Your task to perform on an android device: What's the price of the Sony TV? Image 0: 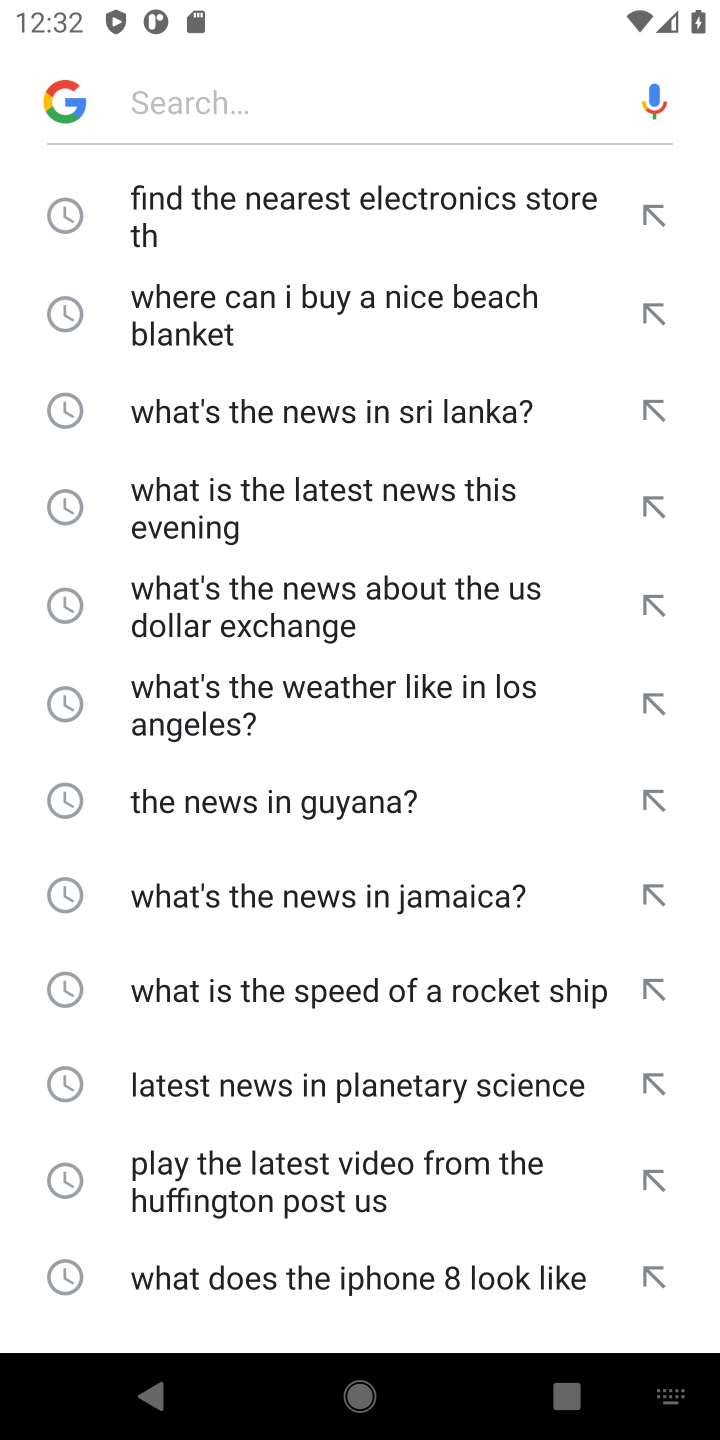
Step 0: press home button
Your task to perform on an android device: What's the price of the Sony TV? Image 1: 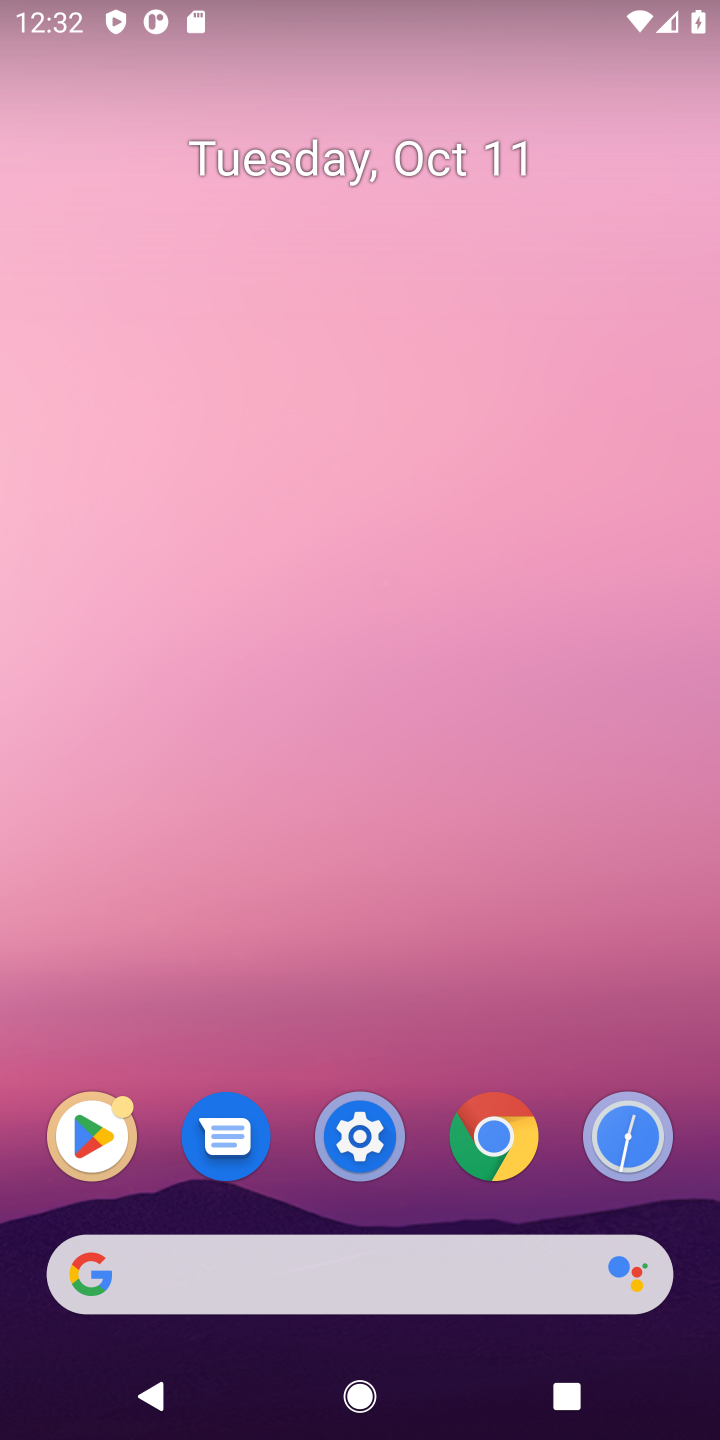
Step 1: click (161, 1276)
Your task to perform on an android device: What's the price of the Sony TV? Image 2: 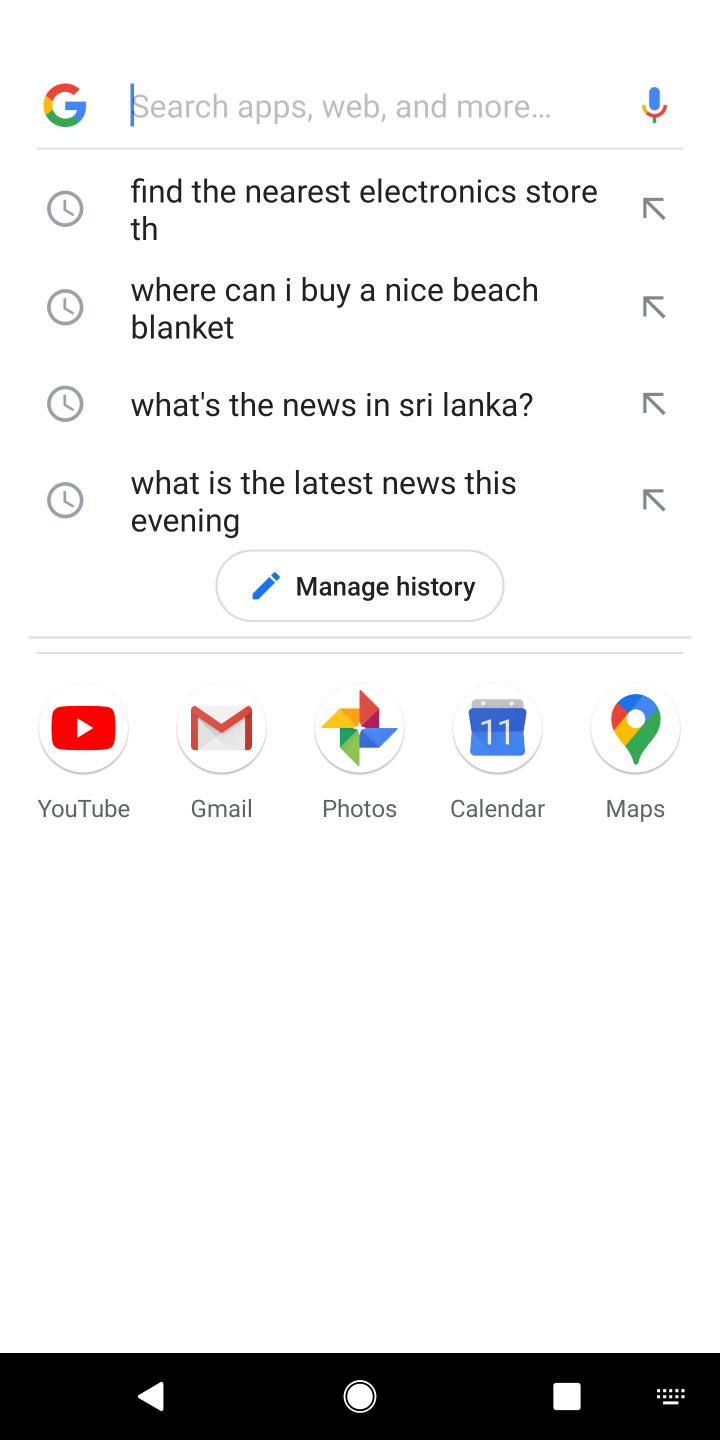
Step 2: type "What's the price of the Sony TV"
Your task to perform on an android device: What's the price of the Sony TV? Image 3: 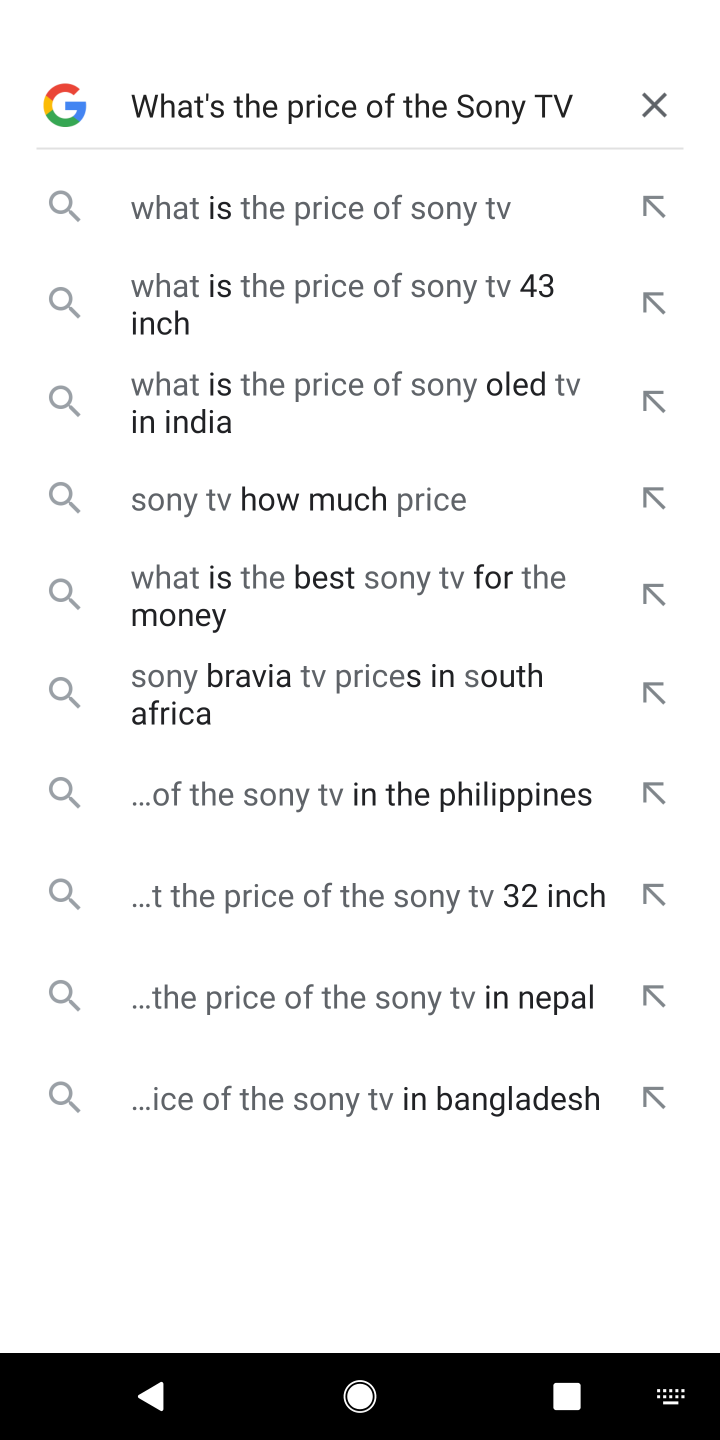
Step 3: press enter
Your task to perform on an android device: What's the price of the Sony TV? Image 4: 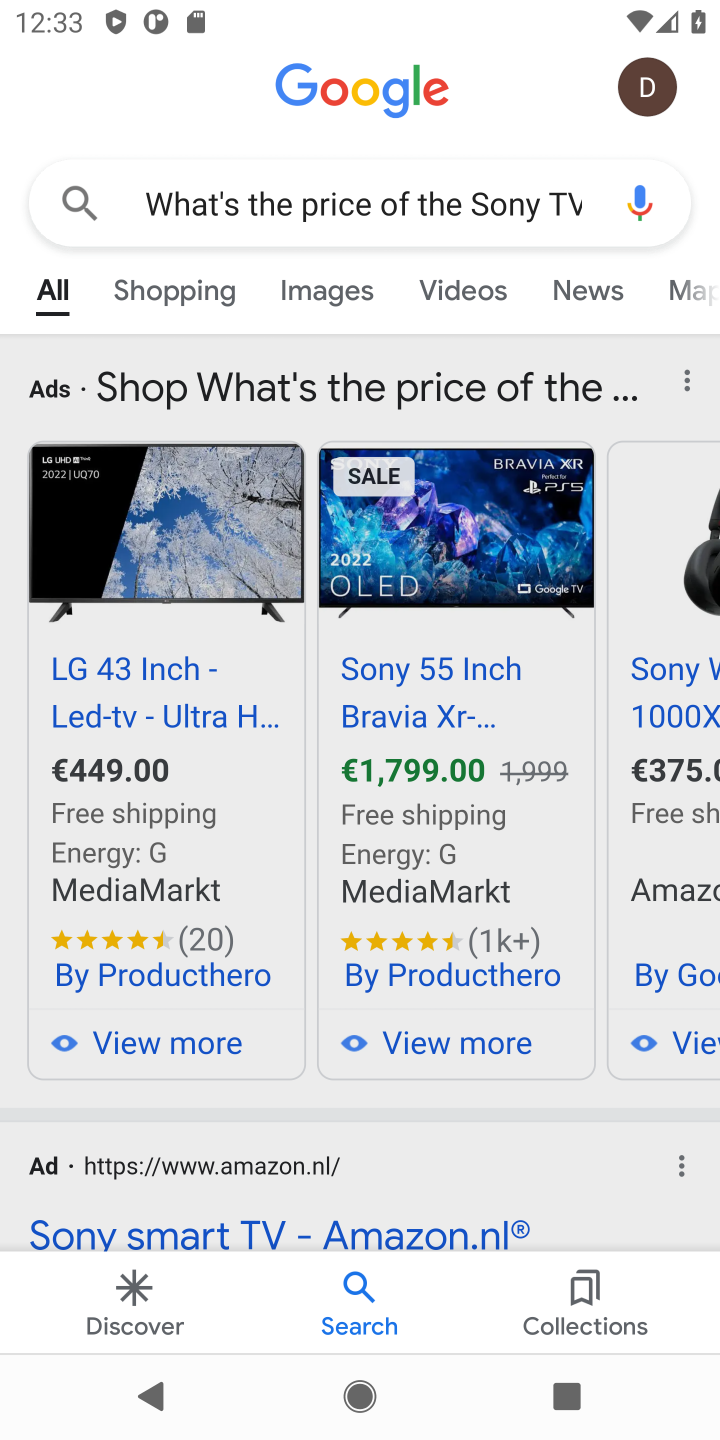
Step 4: drag from (539, 1105) to (544, 894)
Your task to perform on an android device: What's the price of the Sony TV? Image 5: 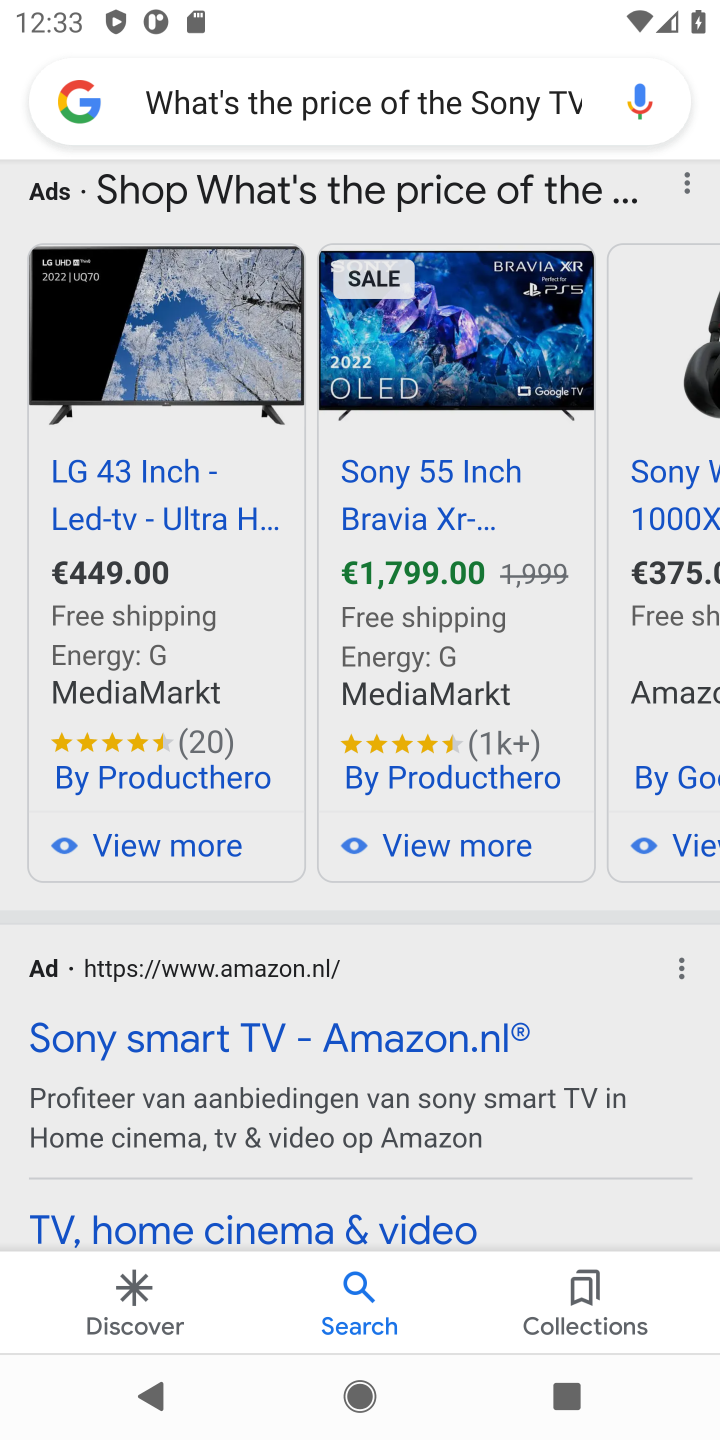
Step 5: click (377, 1055)
Your task to perform on an android device: What's the price of the Sony TV? Image 6: 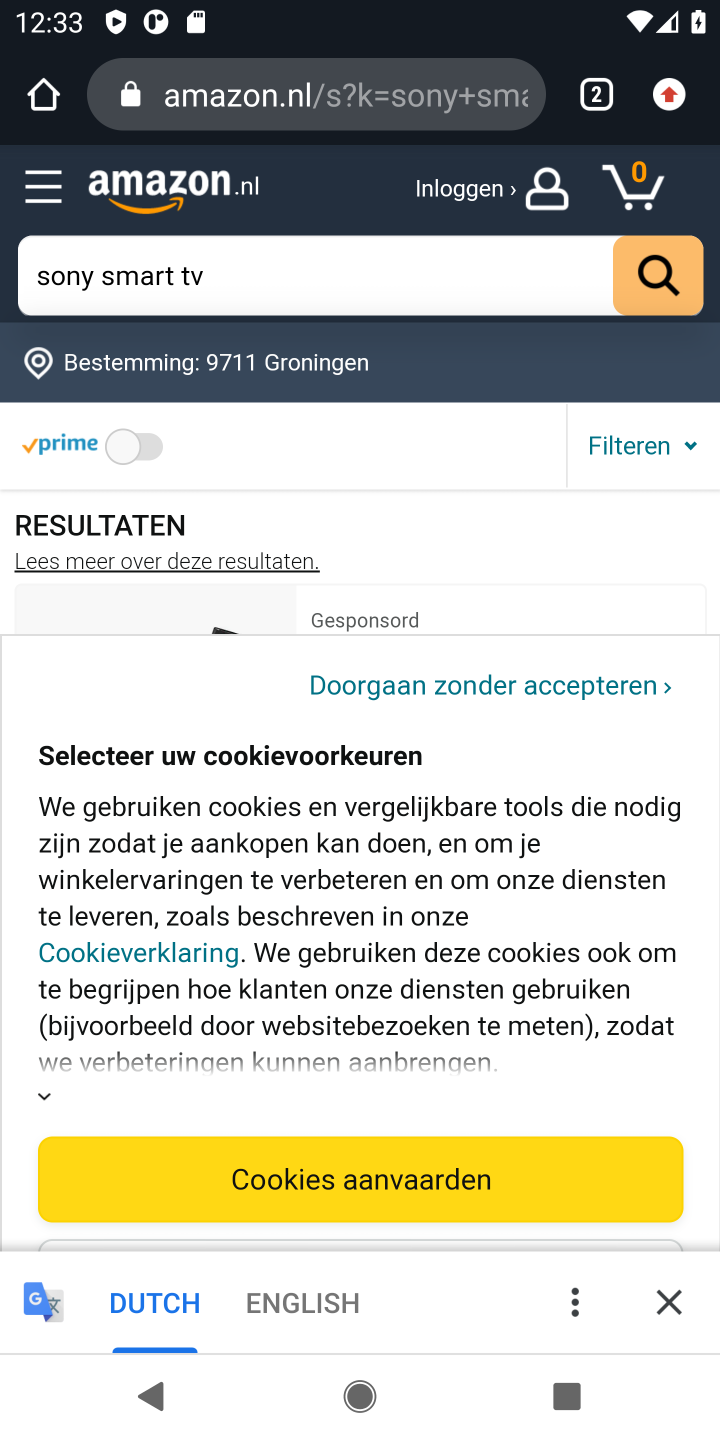
Step 6: click (522, 1188)
Your task to perform on an android device: What's the price of the Sony TV? Image 7: 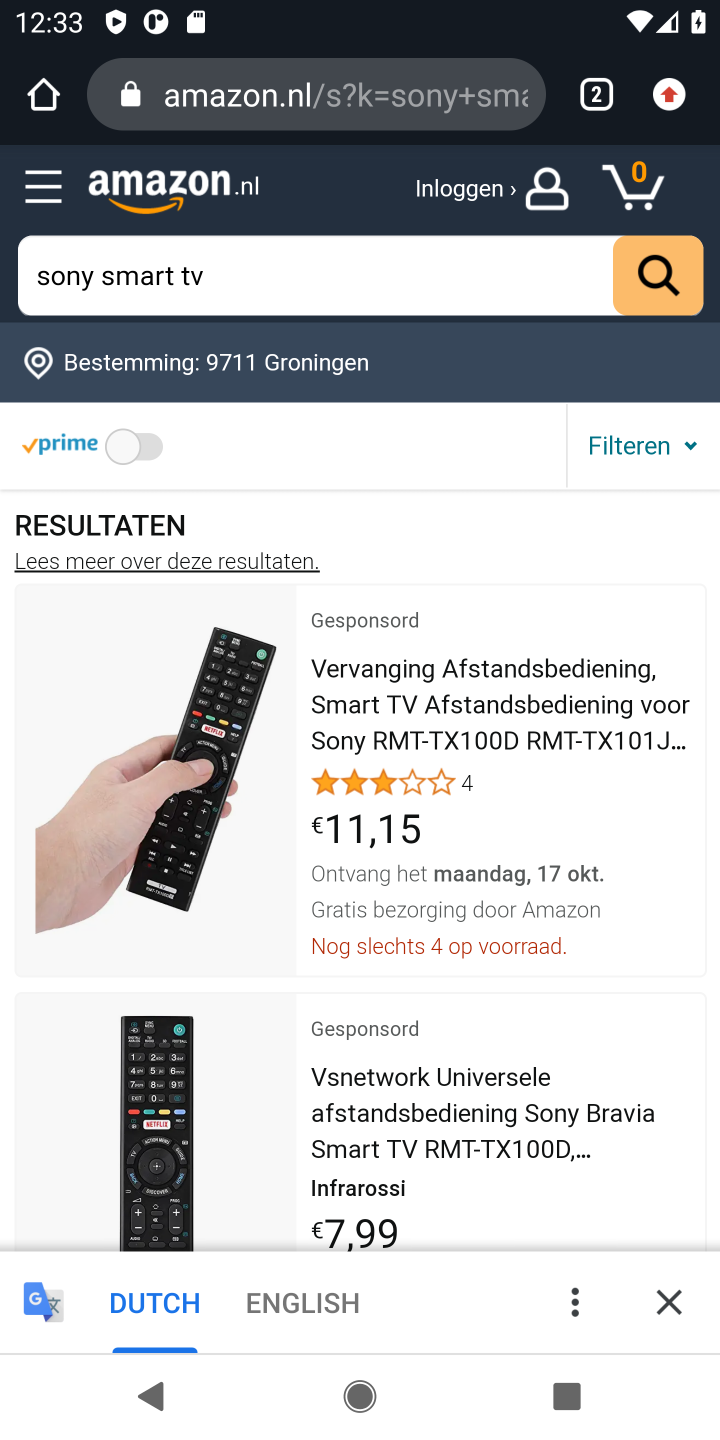
Step 7: task complete